Your task to perform on an android device: Open eBay Image 0: 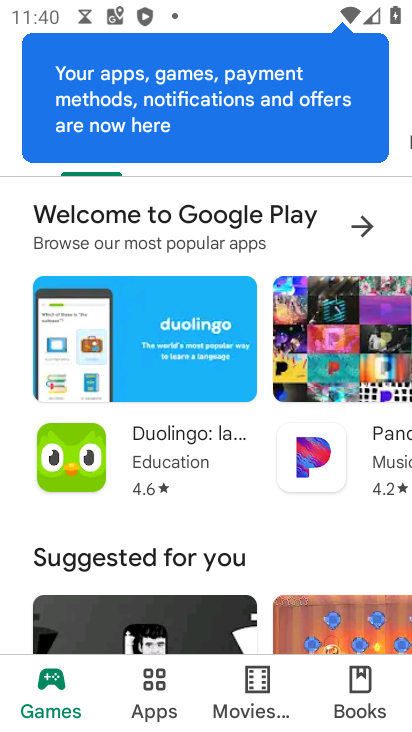
Step 0: press home button
Your task to perform on an android device: Open eBay Image 1: 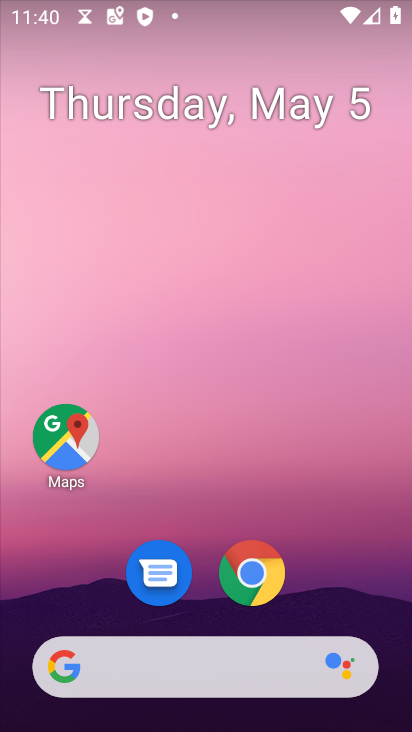
Step 1: drag from (220, 599) to (260, 184)
Your task to perform on an android device: Open eBay Image 2: 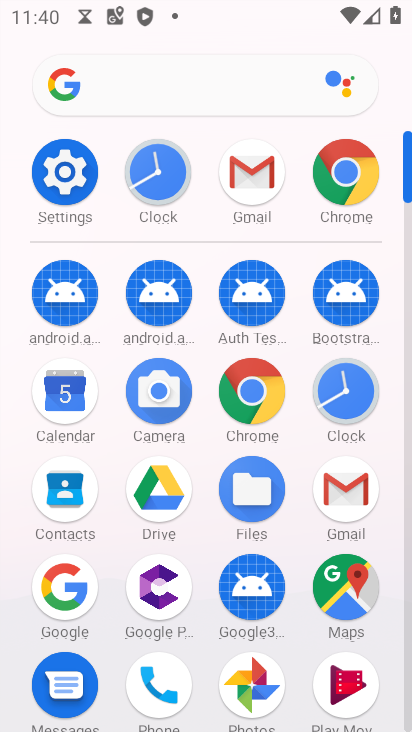
Step 2: click (244, 386)
Your task to perform on an android device: Open eBay Image 3: 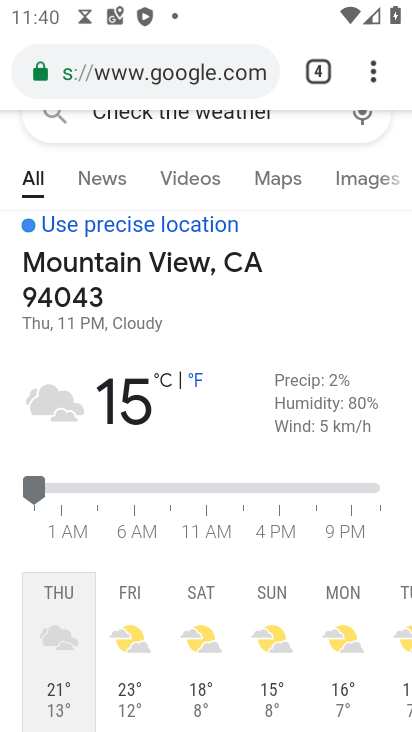
Step 3: click (365, 75)
Your task to perform on an android device: Open eBay Image 4: 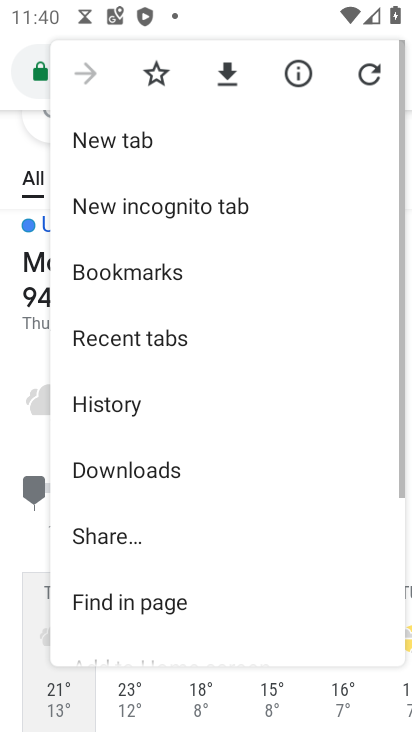
Step 4: click (150, 143)
Your task to perform on an android device: Open eBay Image 5: 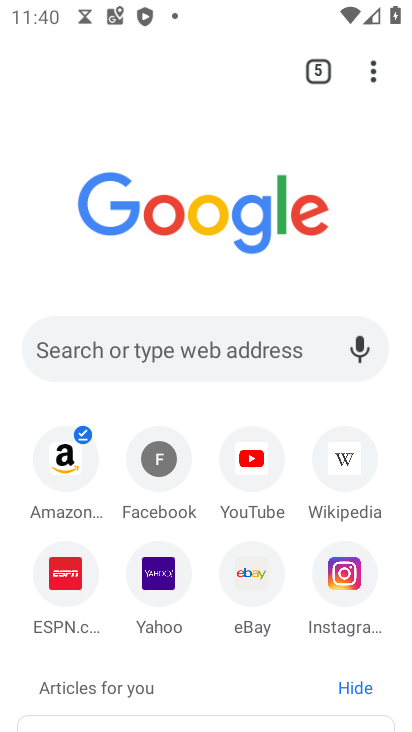
Step 5: click (237, 575)
Your task to perform on an android device: Open eBay Image 6: 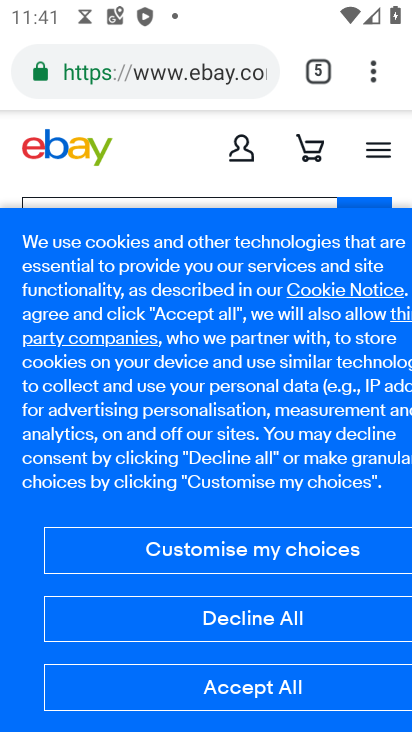
Step 6: task complete